Your task to perform on an android device: open app "Speedtest by Ookla" (install if not already installed) Image 0: 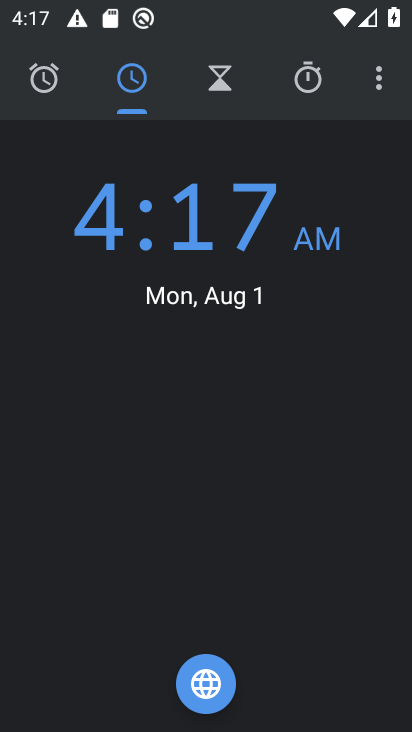
Step 0: press home button
Your task to perform on an android device: open app "Speedtest by Ookla" (install if not already installed) Image 1: 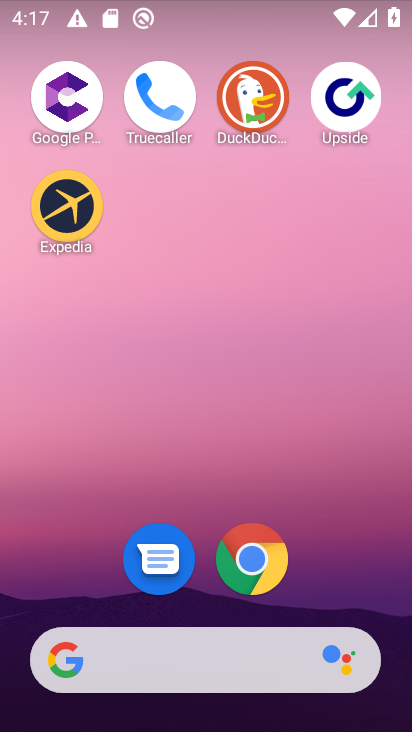
Step 1: drag from (212, 520) to (228, 142)
Your task to perform on an android device: open app "Speedtest by Ookla" (install if not already installed) Image 2: 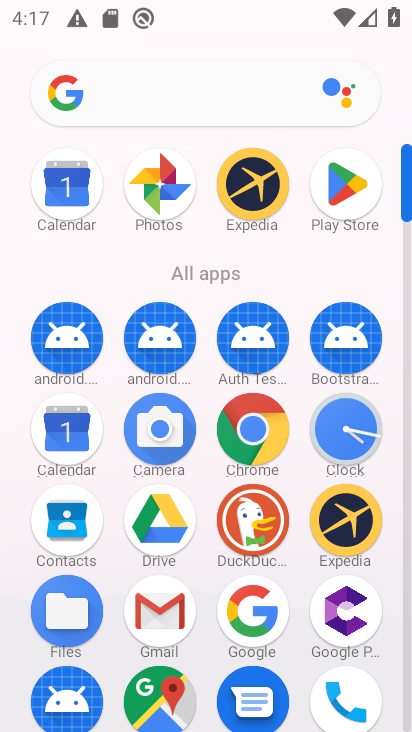
Step 2: click (357, 191)
Your task to perform on an android device: open app "Speedtest by Ookla" (install if not already installed) Image 3: 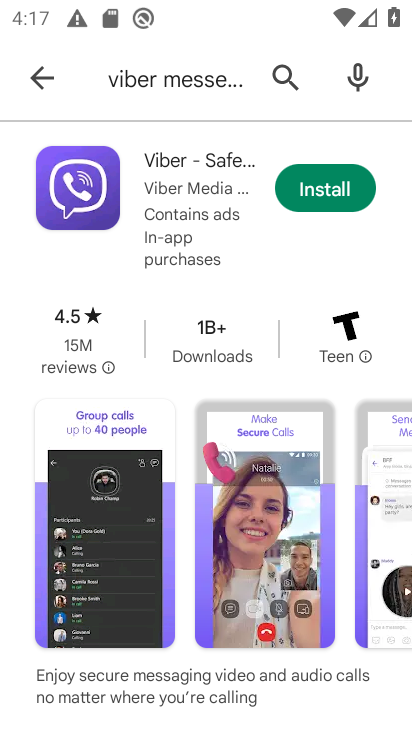
Step 3: click (221, 83)
Your task to perform on an android device: open app "Speedtest by Ookla" (install if not already installed) Image 4: 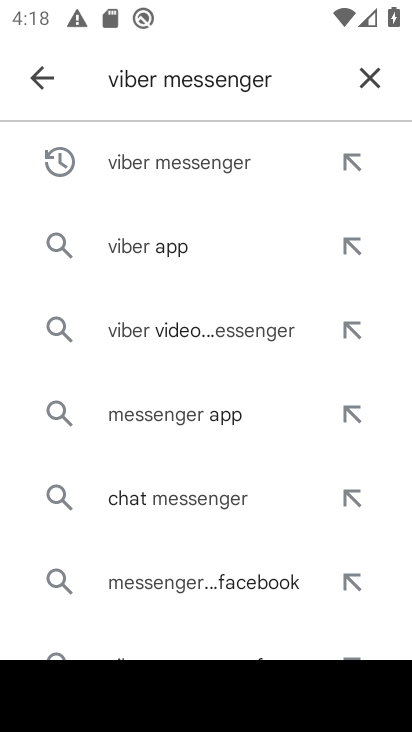
Step 4: click (355, 75)
Your task to perform on an android device: open app "Speedtest by Ookla" (install if not already installed) Image 5: 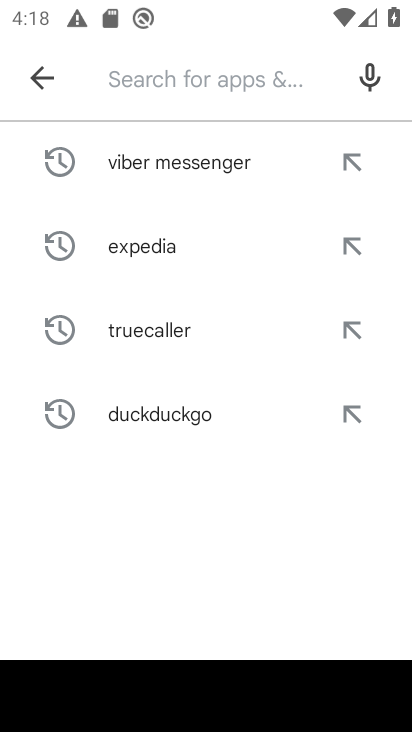
Step 5: type "speedtest by Ookla"
Your task to perform on an android device: open app "Speedtest by Ookla" (install if not already installed) Image 6: 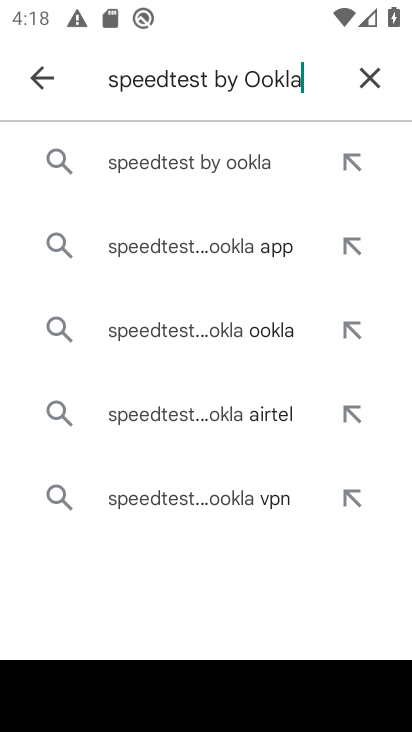
Step 6: click (223, 170)
Your task to perform on an android device: open app "Speedtest by Ookla" (install if not already installed) Image 7: 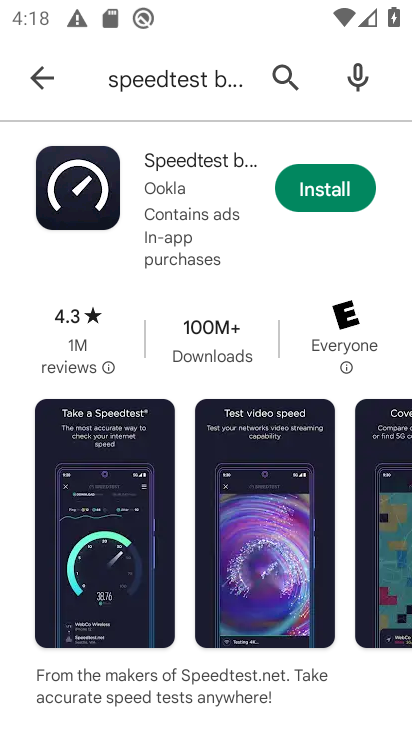
Step 7: click (314, 186)
Your task to perform on an android device: open app "Speedtest by Ookla" (install if not already installed) Image 8: 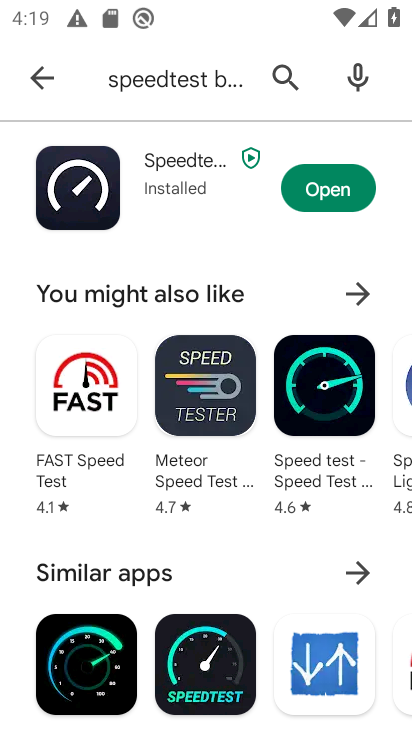
Step 8: click (332, 186)
Your task to perform on an android device: open app "Speedtest by Ookla" (install if not already installed) Image 9: 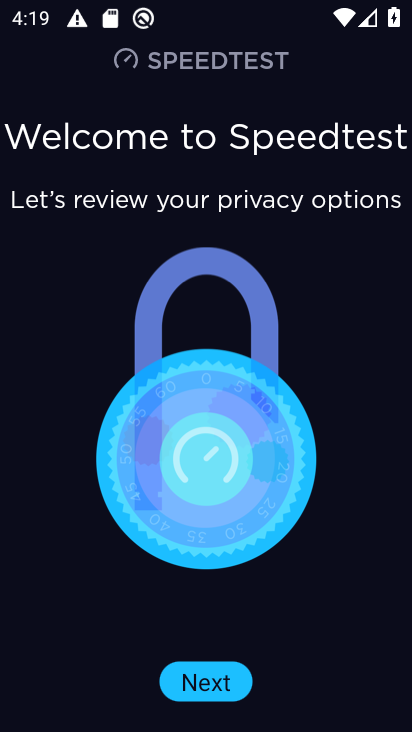
Step 9: click (228, 685)
Your task to perform on an android device: open app "Speedtest by Ookla" (install if not already installed) Image 10: 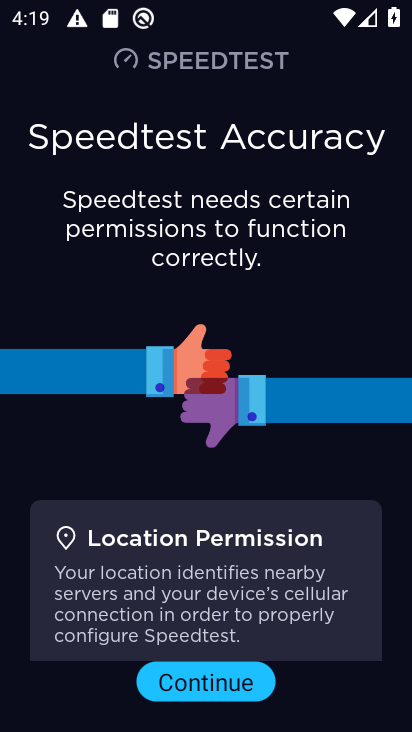
Step 10: click (228, 684)
Your task to perform on an android device: open app "Speedtest by Ookla" (install if not already installed) Image 11: 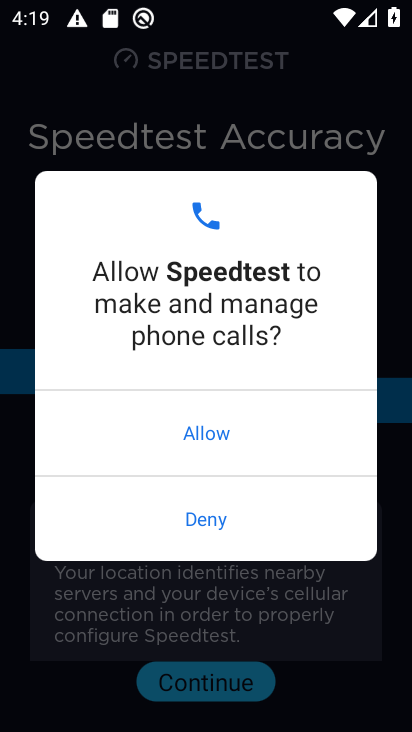
Step 11: click (238, 410)
Your task to perform on an android device: open app "Speedtest by Ookla" (install if not already installed) Image 12: 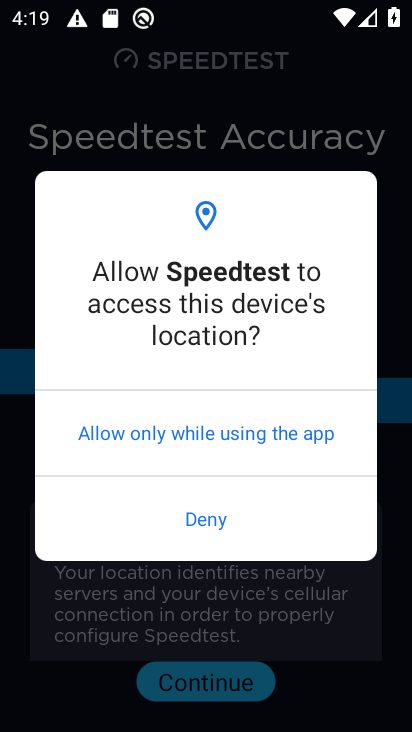
Step 12: click (236, 451)
Your task to perform on an android device: open app "Speedtest by Ookla" (install if not already installed) Image 13: 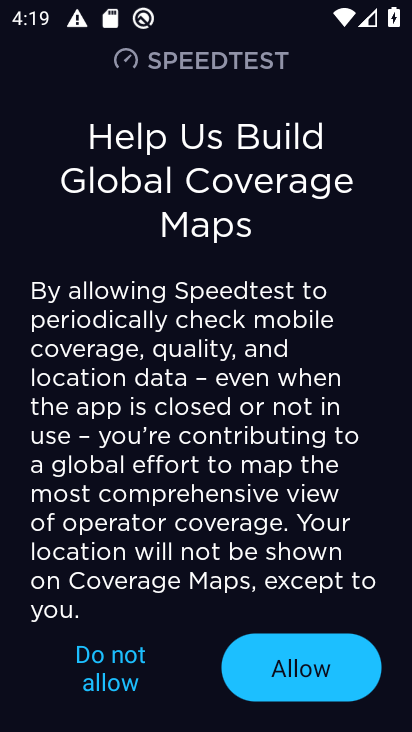
Step 13: click (274, 667)
Your task to perform on an android device: open app "Speedtest by Ookla" (install if not already installed) Image 14: 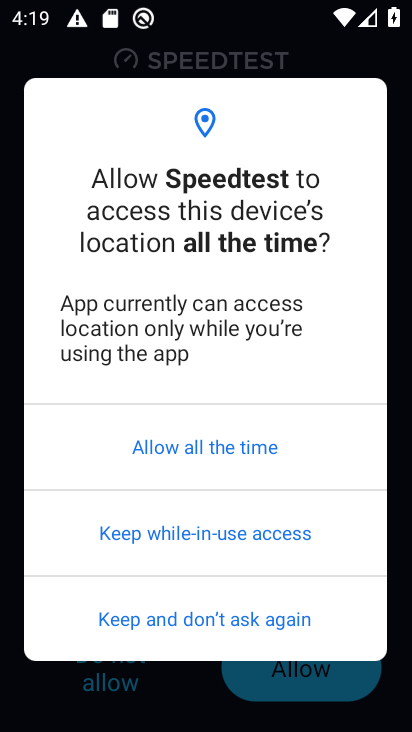
Step 14: click (241, 451)
Your task to perform on an android device: open app "Speedtest by Ookla" (install if not already installed) Image 15: 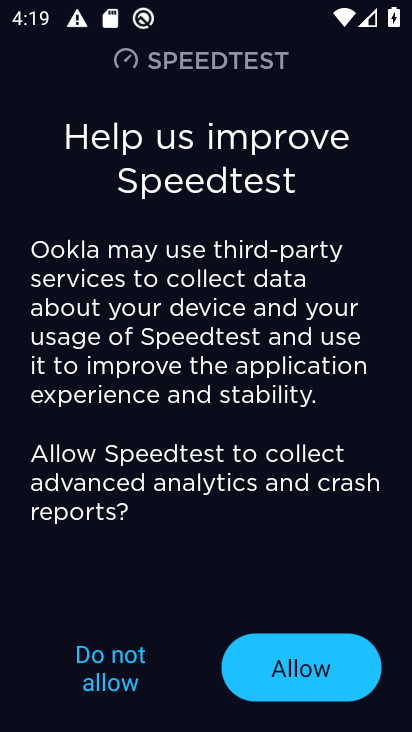
Step 15: click (314, 673)
Your task to perform on an android device: open app "Speedtest by Ookla" (install if not already installed) Image 16: 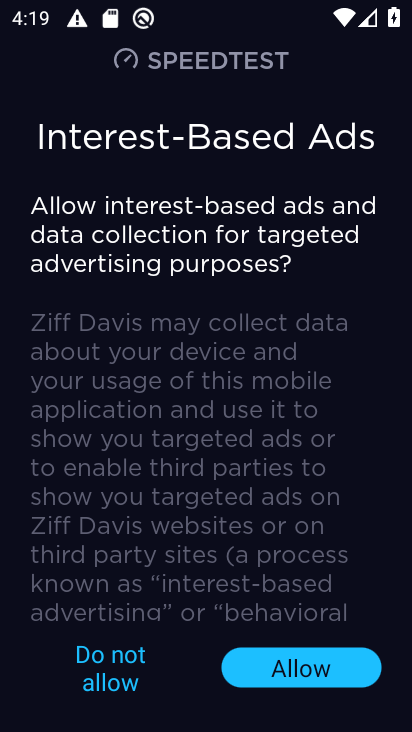
Step 16: click (313, 670)
Your task to perform on an android device: open app "Speedtest by Ookla" (install if not already installed) Image 17: 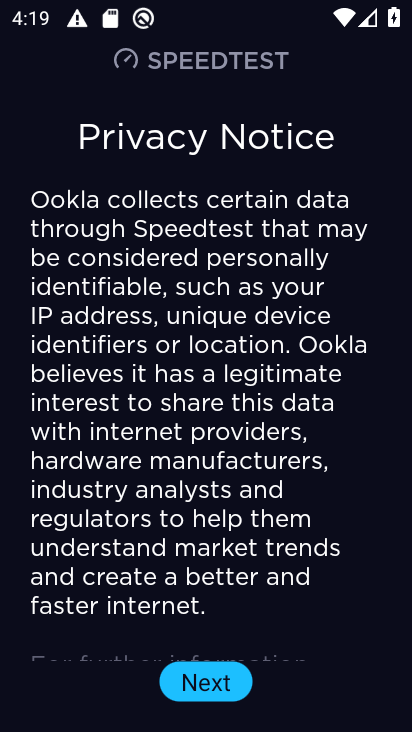
Step 17: click (229, 678)
Your task to perform on an android device: open app "Speedtest by Ookla" (install if not already installed) Image 18: 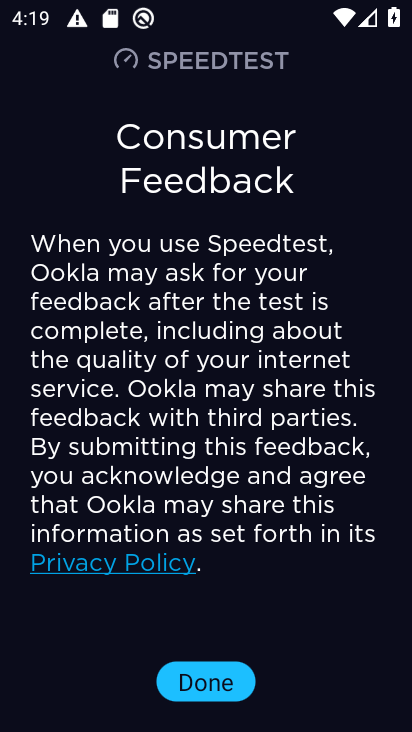
Step 18: click (227, 680)
Your task to perform on an android device: open app "Speedtest by Ookla" (install if not already installed) Image 19: 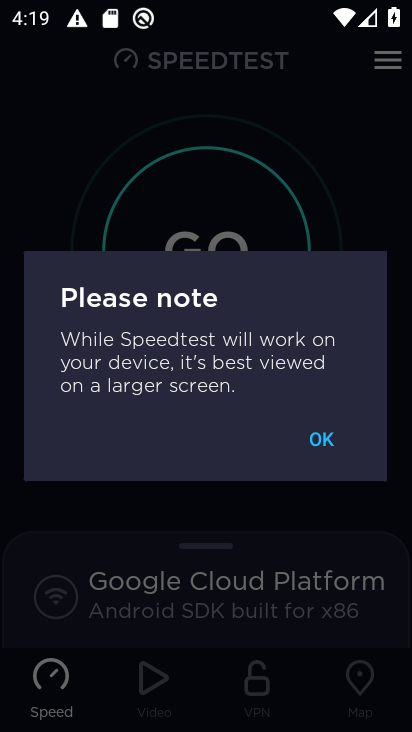
Step 19: click (324, 449)
Your task to perform on an android device: open app "Speedtest by Ookla" (install if not already installed) Image 20: 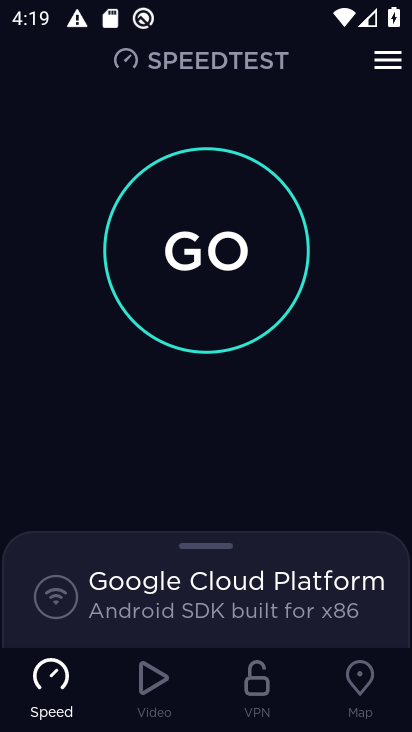
Step 20: click (216, 295)
Your task to perform on an android device: open app "Speedtest by Ookla" (install if not already installed) Image 21: 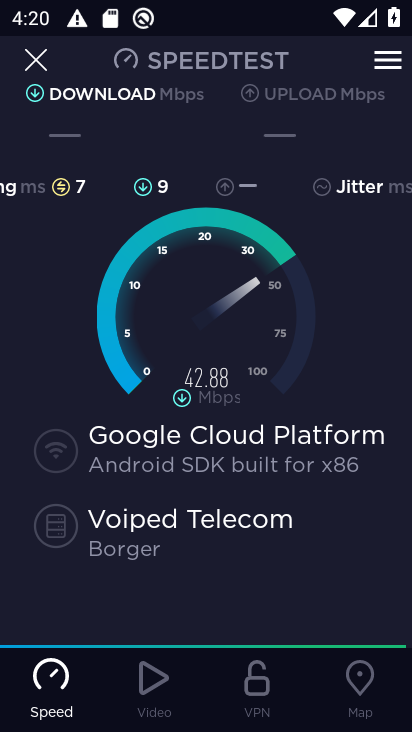
Step 21: task complete